Your task to perform on an android device: open app "Life360: Find Family & Friends" Image 0: 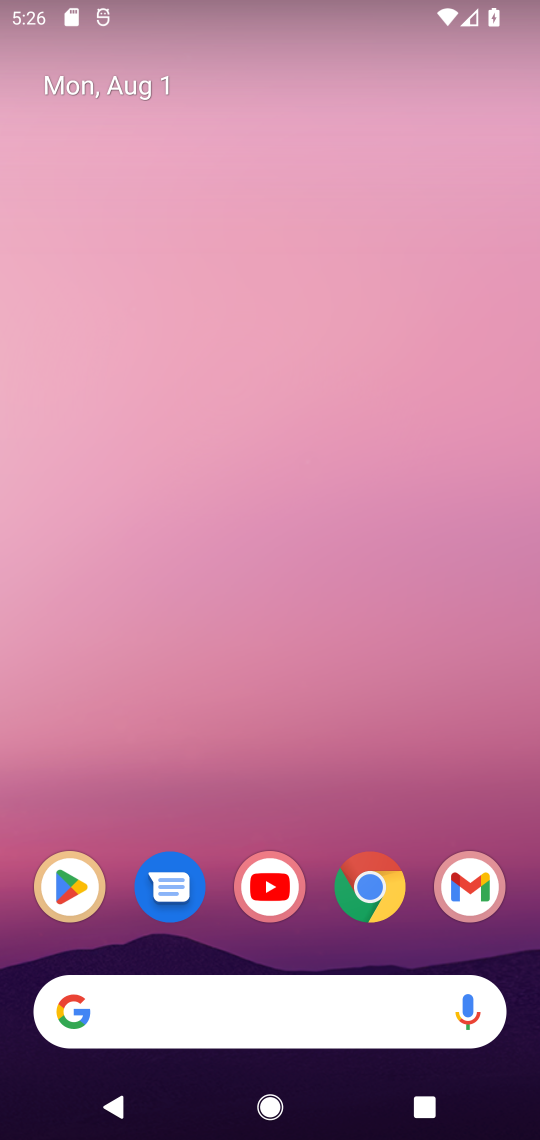
Step 0: click (91, 889)
Your task to perform on an android device: open app "Life360: Find Family & Friends" Image 1: 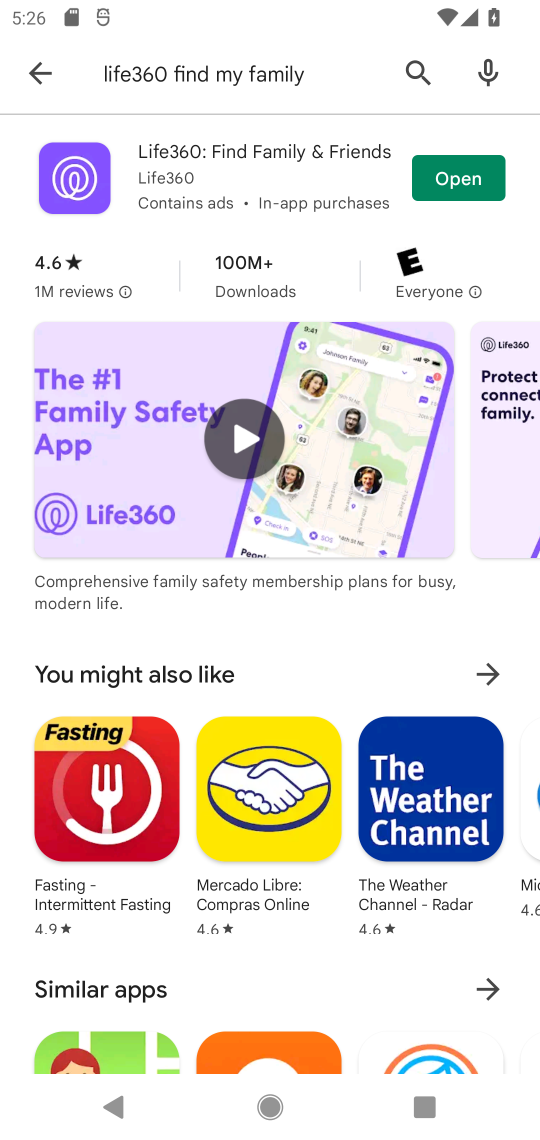
Step 1: click (467, 171)
Your task to perform on an android device: open app "Life360: Find Family & Friends" Image 2: 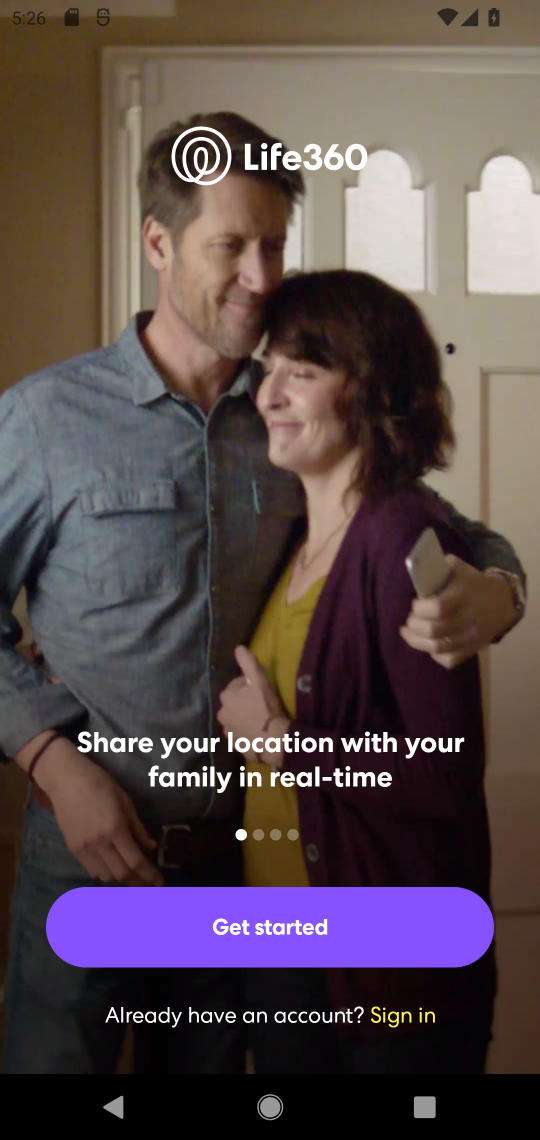
Step 2: task complete